Your task to perform on an android device: turn off picture-in-picture Image 0: 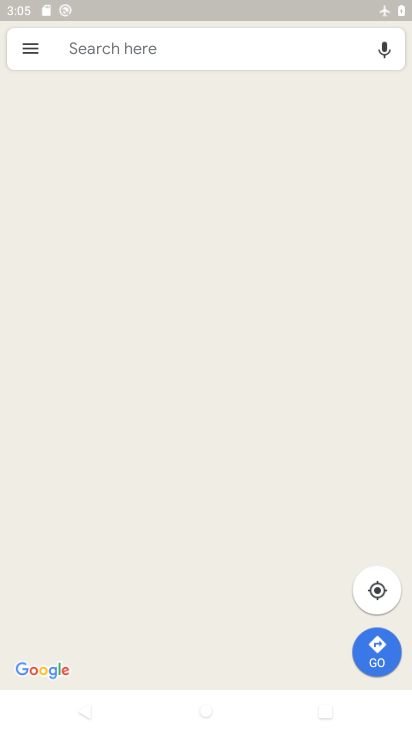
Step 0: press home button
Your task to perform on an android device: turn off picture-in-picture Image 1: 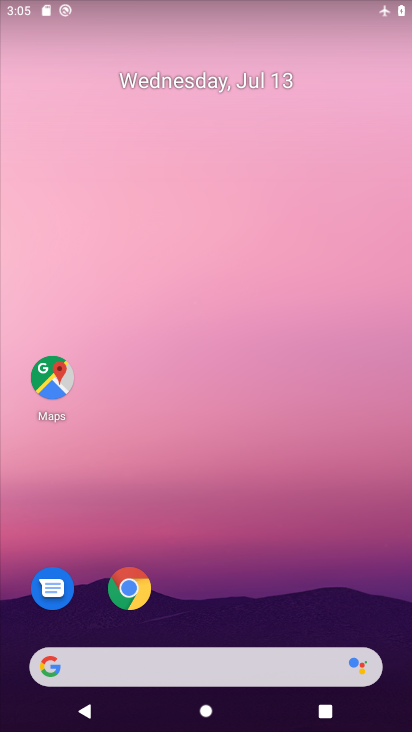
Step 1: drag from (186, 635) to (126, 135)
Your task to perform on an android device: turn off picture-in-picture Image 2: 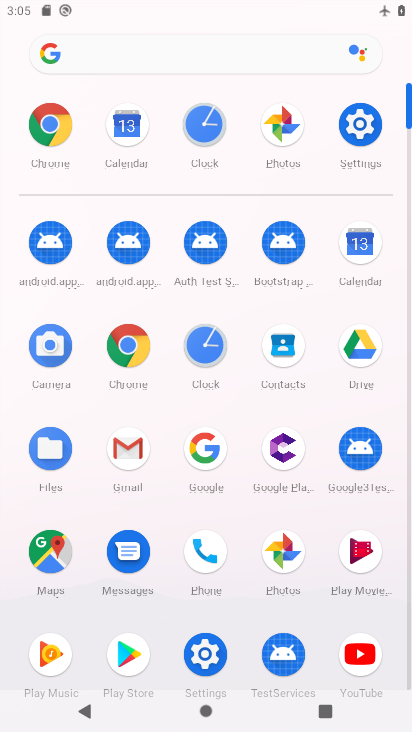
Step 2: click (349, 121)
Your task to perform on an android device: turn off picture-in-picture Image 3: 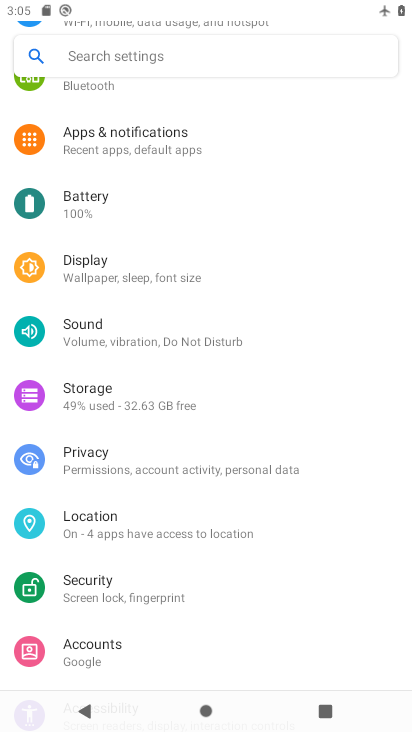
Step 3: click (93, 153)
Your task to perform on an android device: turn off picture-in-picture Image 4: 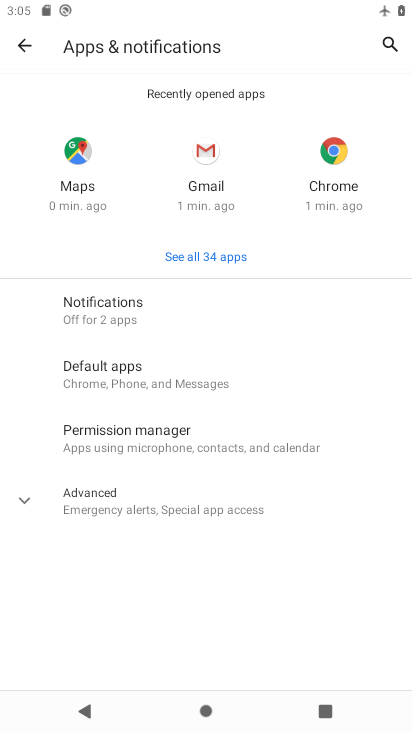
Step 4: click (99, 505)
Your task to perform on an android device: turn off picture-in-picture Image 5: 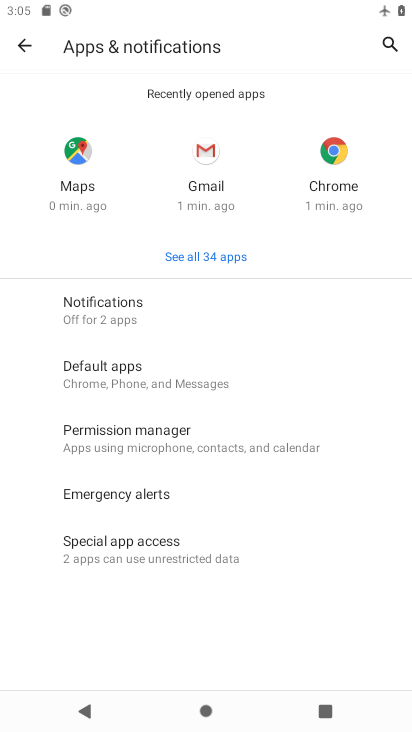
Step 5: click (132, 548)
Your task to perform on an android device: turn off picture-in-picture Image 6: 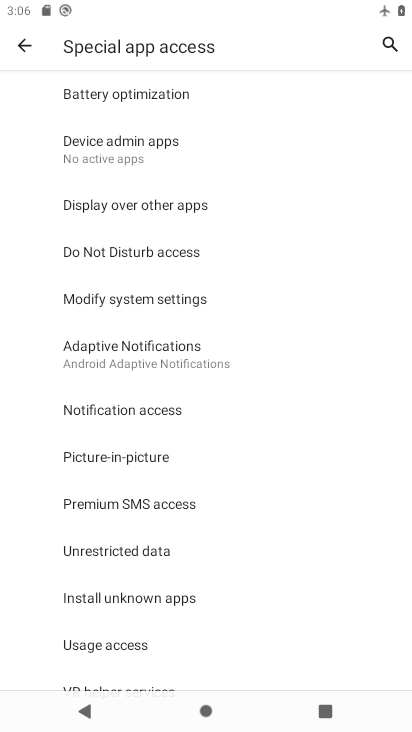
Step 6: task complete